Your task to perform on an android device: Turn off the flashlight Image 0: 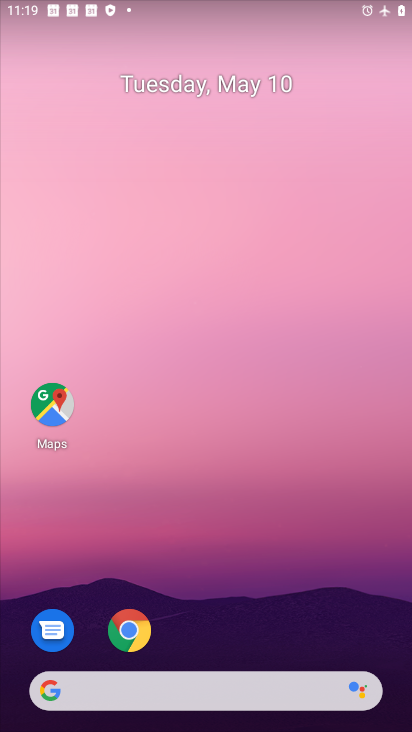
Step 0: drag from (238, 7) to (355, 729)
Your task to perform on an android device: Turn off the flashlight Image 1: 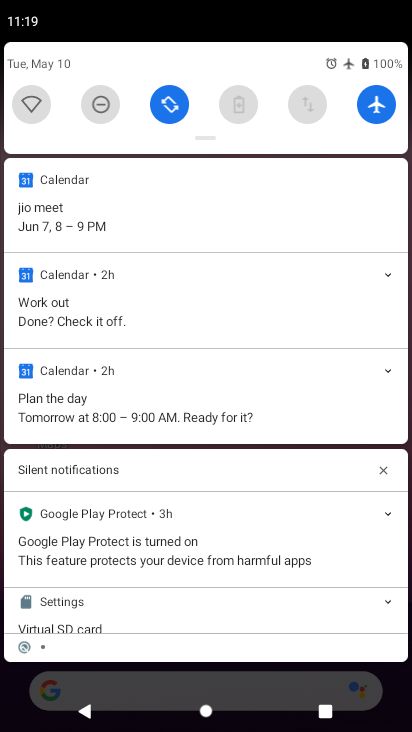
Step 1: task complete